Your task to perform on an android device: open app "File Manager" Image 0: 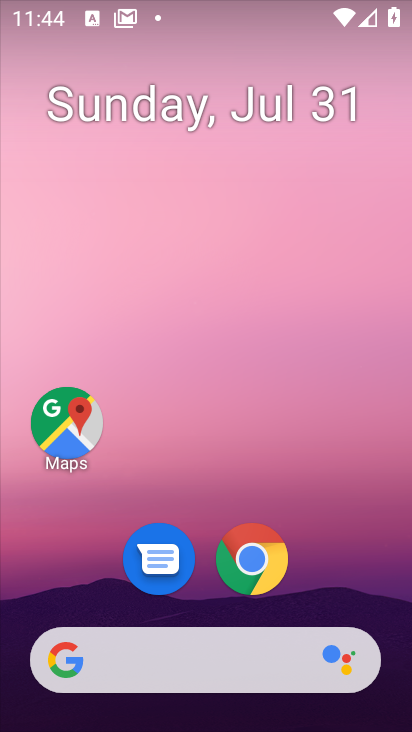
Step 0: drag from (131, 491) to (241, 1)
Your task to perform on an android device: open app "File Manager" Image 1: 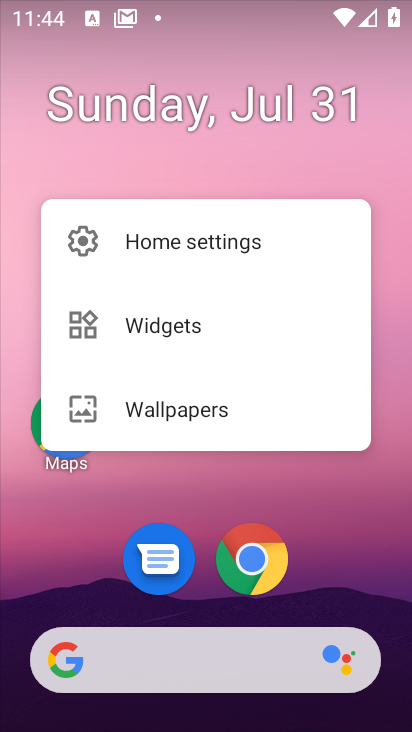
Step 1: click (73, 554)
Your task to perform on an android device: open app "File Manager" Image 2: 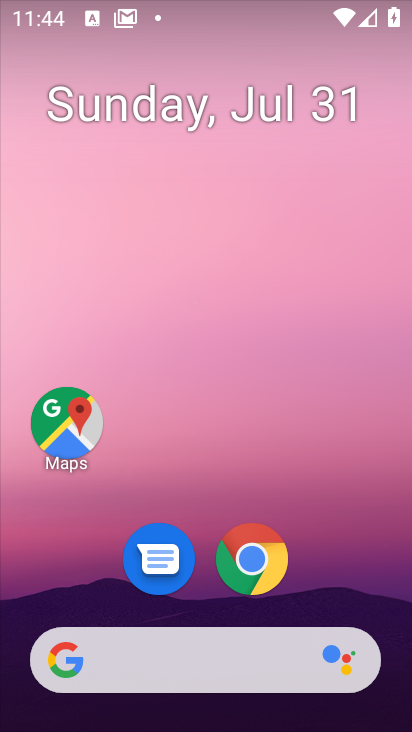
Step 2: drag from (88, 537) to (241, 3)
Your task to perform on an android device: open app "File Manager" Image 3: 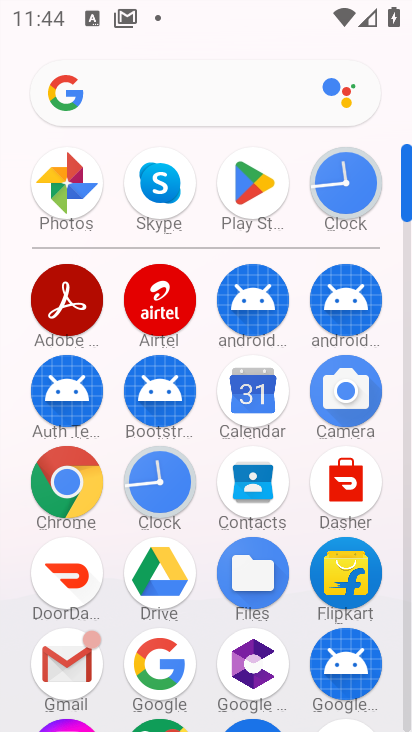
Step 3: click (227, 199)
Your task to perform on an android device: open app "File Manager" Image 4: 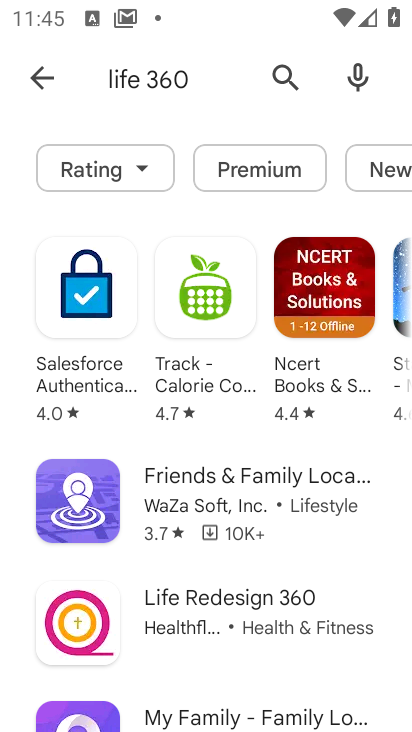
Step 4: click (280, 73)
Your task to perform on an android device: open app "File Manager" Image 5: 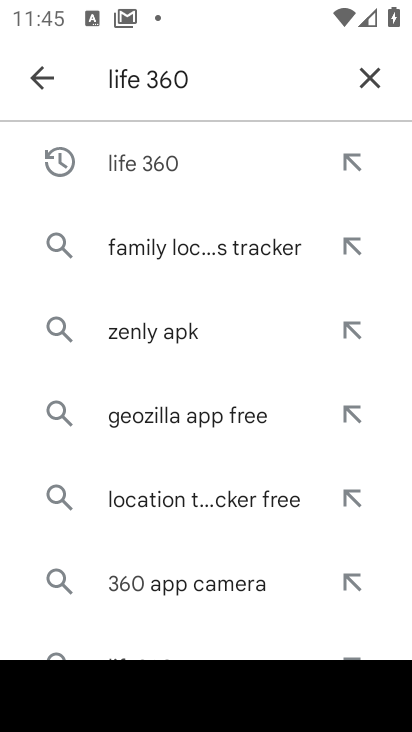
Step 5: click (362, 78)
Your task to perform on an android device: open app "File Manager" Image 6: 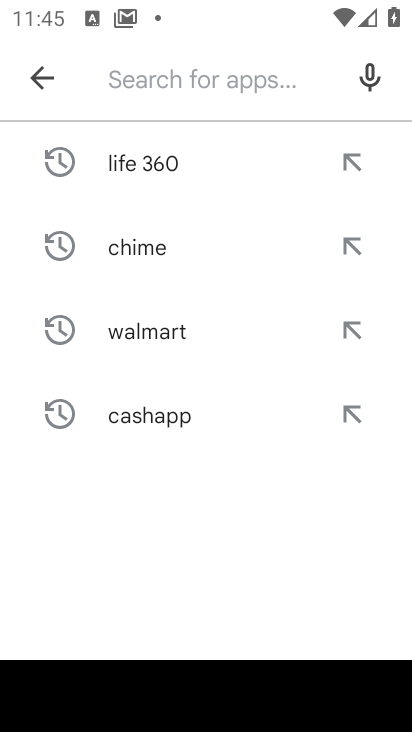
Step 6: click (138, 85)
Your task to perform on an android device: open app "File Manager" Image 7: 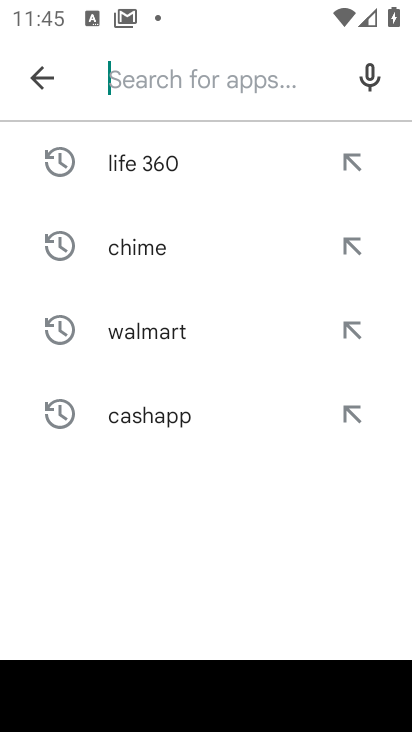
Step 7: type "file manager"
Your task to perform on an android device: open app "File Manager" Image 8: 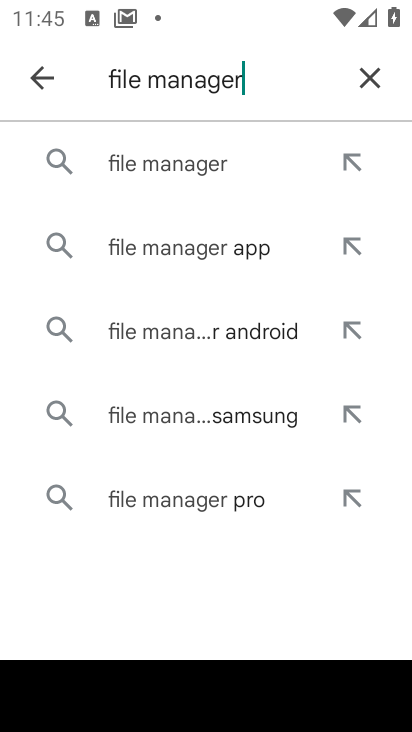
Step 8: click (156, 170)
Your task to perform on an android device: open app "File Manager" Image 9: 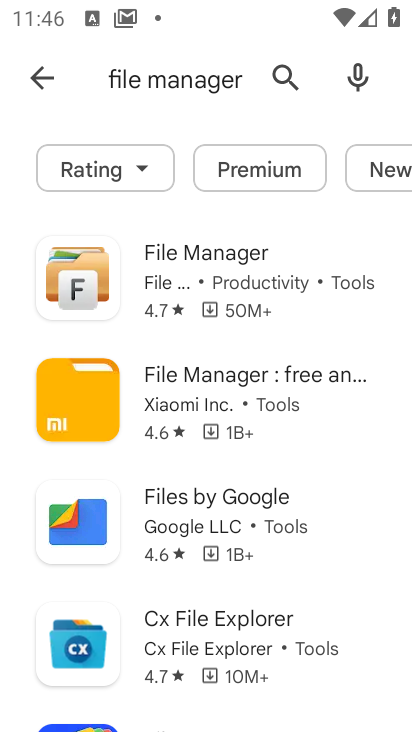
Step 9: click (249, 261)
Your task to perform on an android device: open app "File Manager" Image 10: 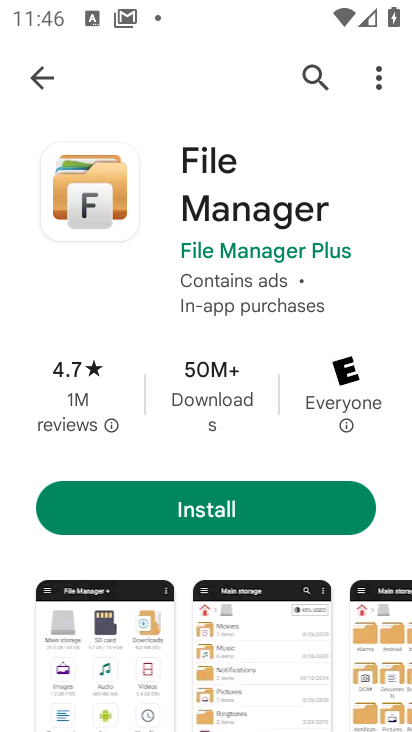
Step 10: task complete